Your task to perform on an android device: Do I have any events this weekend? Image 0: 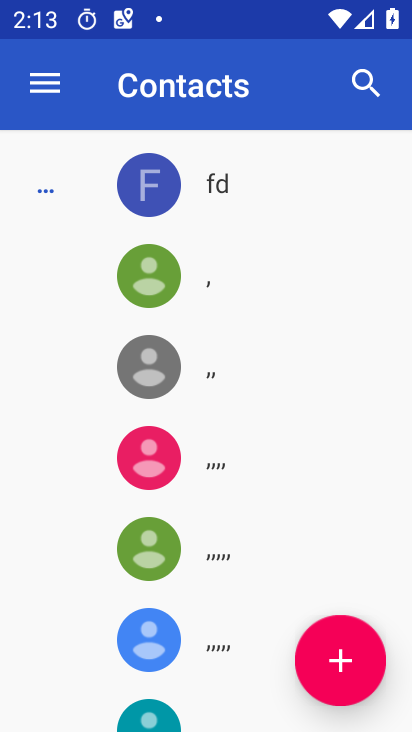
Step 0: press home button
Your task to perform on an android device: Do I have any events this weekend? Image 1: 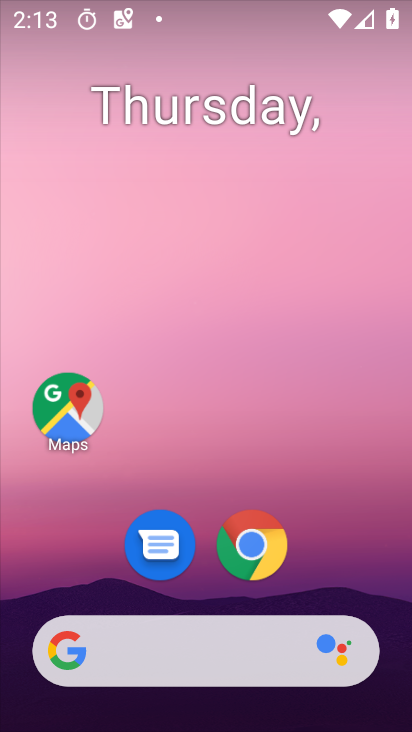
Step 1: drag from (212, 615) to (212, 123)
Your task to perform on an android device: Do I have any events this weekend? Image 2: 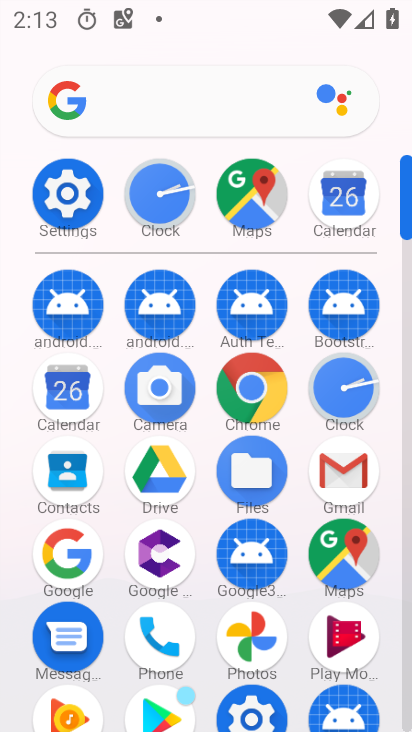
Step 2: click (66, 399)
Your task to perform on an android device: Do I have any events this weekend? Image 3: 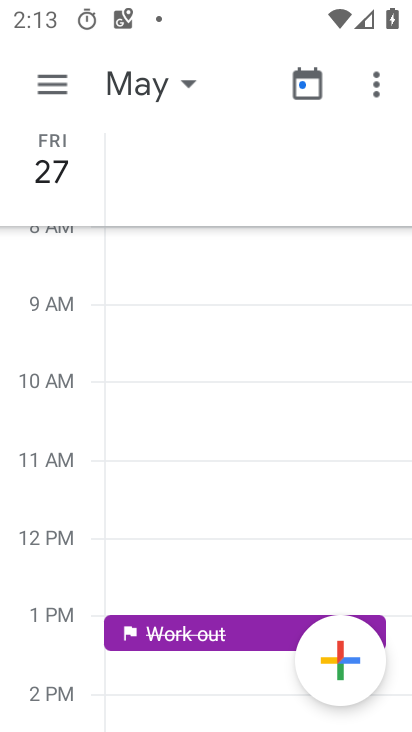
Step 3: click (48, 83)
Your task to perform on an android device: Do I have any events this weekend? Image 4: 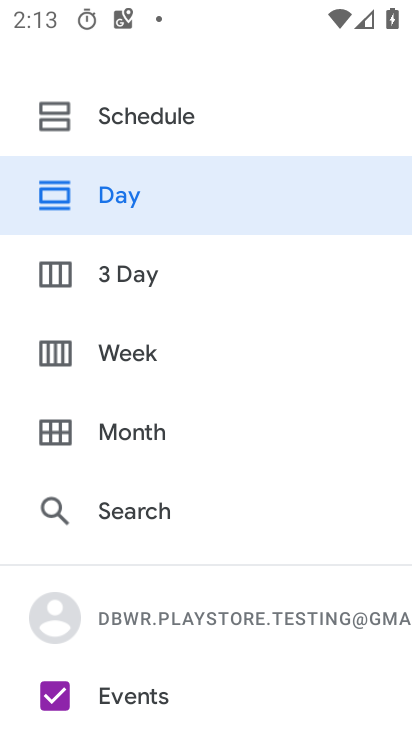
Step 4: drag from (158, 585) to (206, 609)
Your task to perform on an android device: Do I have any events this weekend? Image 5: 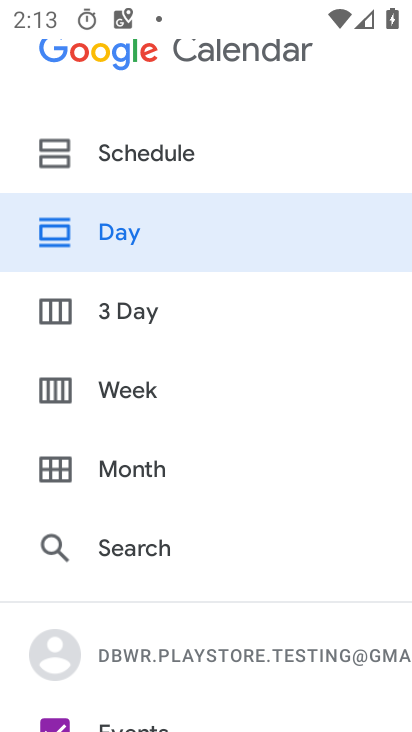
Step 5: click (118, 392)
Your task to perform on an android device: Do I have any events this weekend? Image 6: 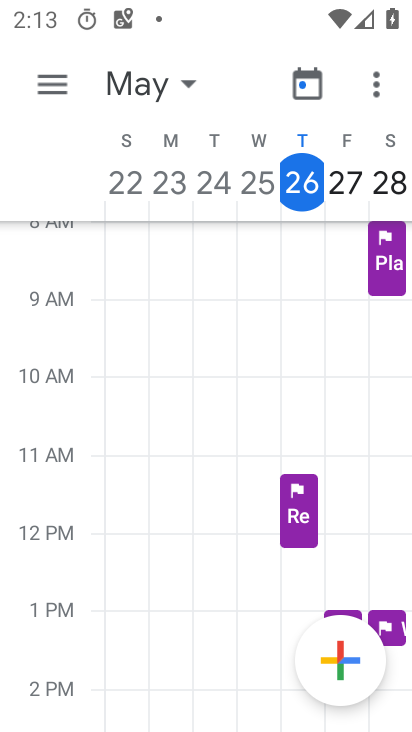
Step 6: task complete